Your task to perform on an android device: add a contact in the contacts app Image 0: 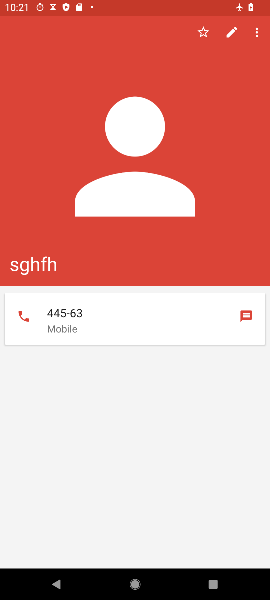
Step 0: press home button
Your task to perform on an android device: add a contact in the contacts app Image 1: 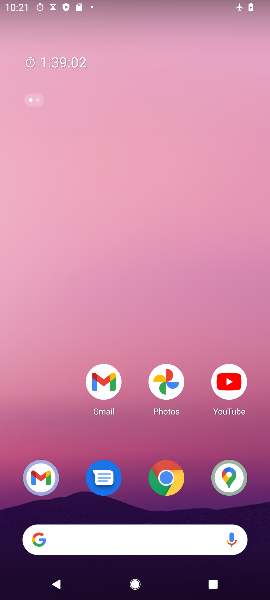
Step 1: drag from (127, 488) to (159, 61)
Your task to perform on an android device: add a contact in the contacts app Image 2: 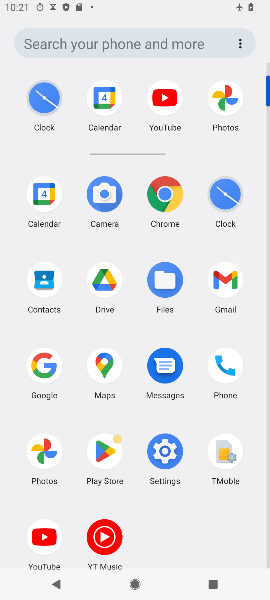
Step 2: click (31, 275)
Your task to perform on an android device: add a contact in the contacts app Image 3: 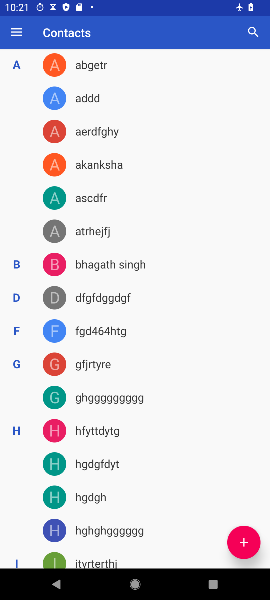
Step 3: click (255, 544)
Your task to perform on an android device: add a contact in the contacts app Image 4: 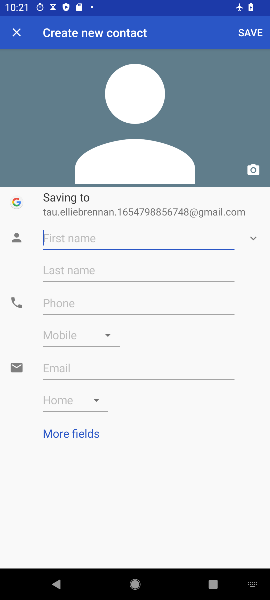
Step 4: type "cfhrk"
Your task to perform on an android device: add a contact in the contacts app Image 5: 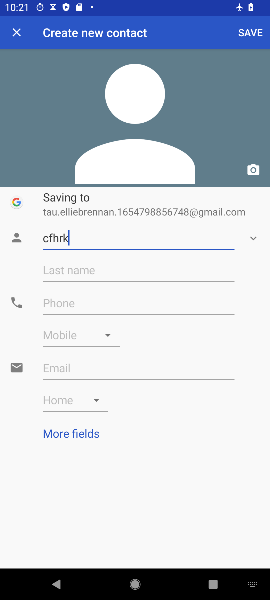
Step 5: click (78, 302)
Your task to perform on an android device: add a contact in the contacts app Image 6: 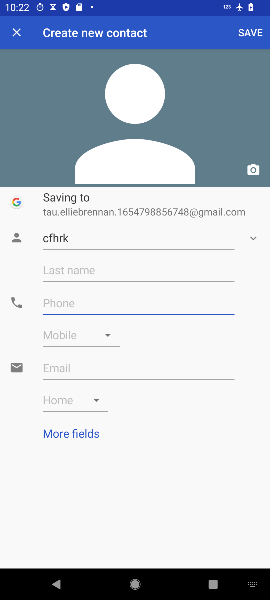
Step 6: type "66477"
Your task to perform on an android device: add a contact in the contacts app Image 7: 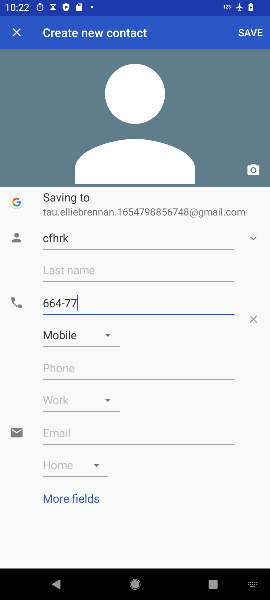
Step 7: click (246, 32)
Your task to perform on an android device: add a contact in the contacts app Image 8: 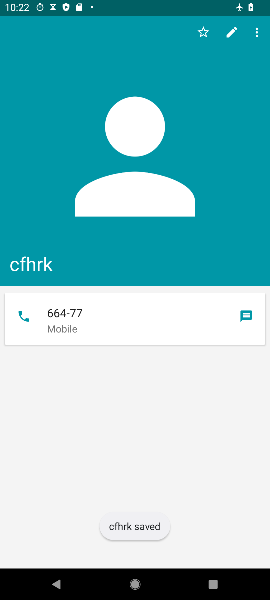
Step 8: task complete